Your task to perform on an android device: toggle translation in the chrome app Image 0: 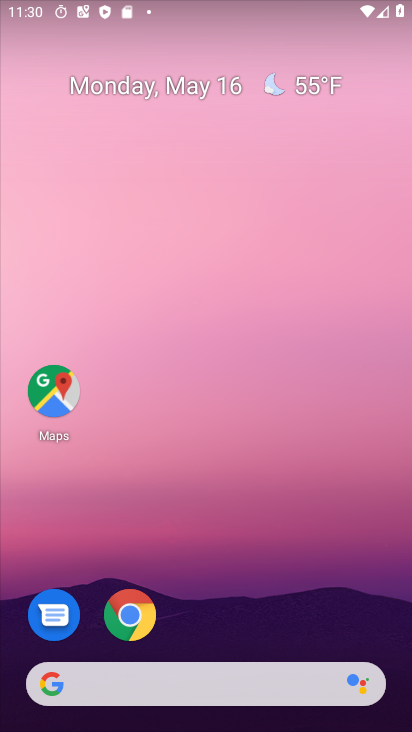
Step 0: press home button
Your task to perform on an android device: toggle translation in the chrome app Image 1: 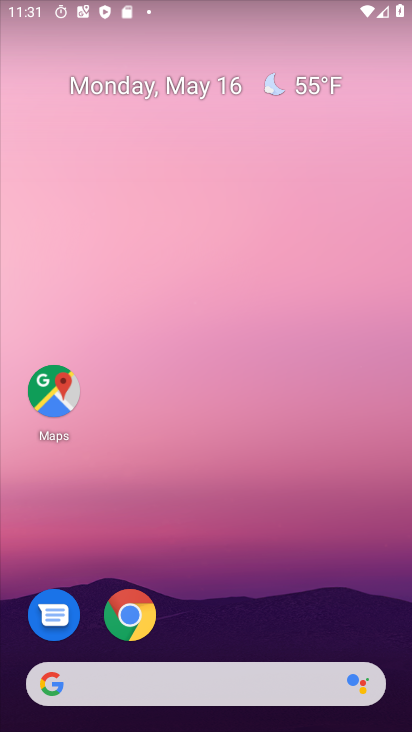
Step 1: click (140, 622)
Your task to perform on an android device: toggle translation in the chrome app Image 2: 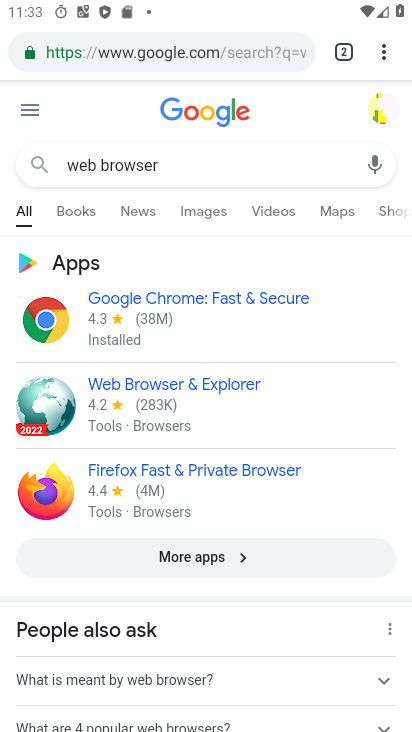
Step 2: click (374, 52)
Your task to perform on an android device: toggle translation in the chrome app Image 3: 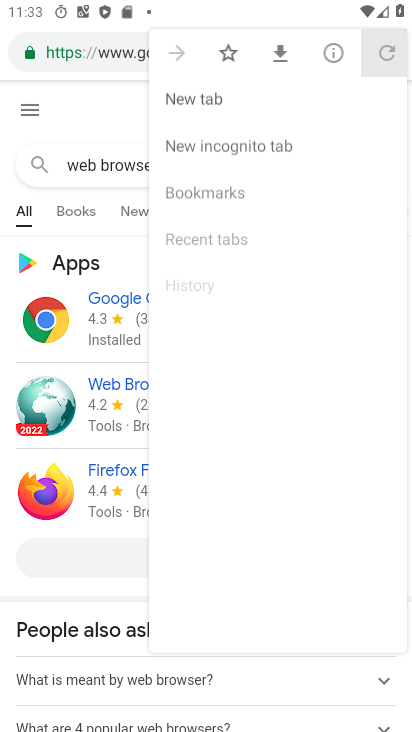
Step 3: drag from (388, 66) to (34, 265)
Your task to perform on an android device: toggle translation in the chrome app Image 4: 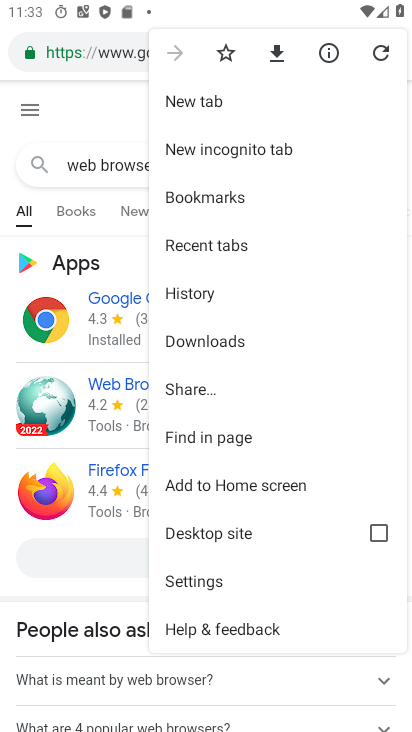
Step 4: click (214, 577)
Your task to perform on an android device: toggle translation in the chrome app Image 5: 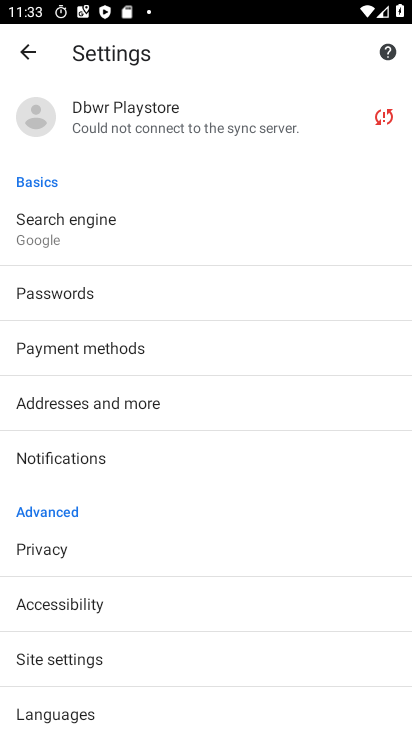
Step 5: drag from (189, 366) to (199, 260)
Your task to perform on an android device: toggle translation in the chrome app Image 6: 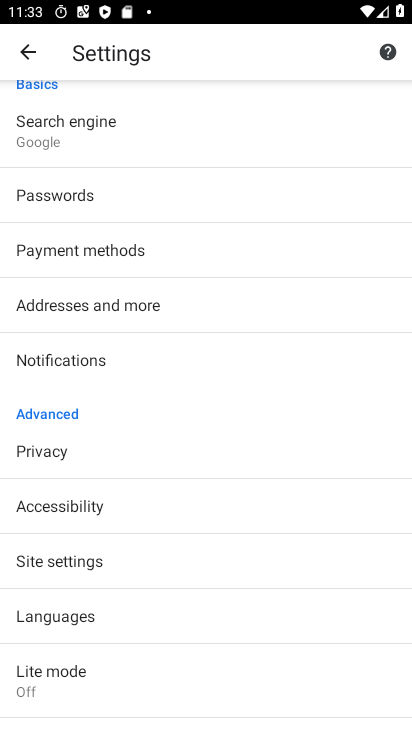
Step 6: click (246, 205)
Your task to perform on an android device: toggle translation in the chrome app Image 7: 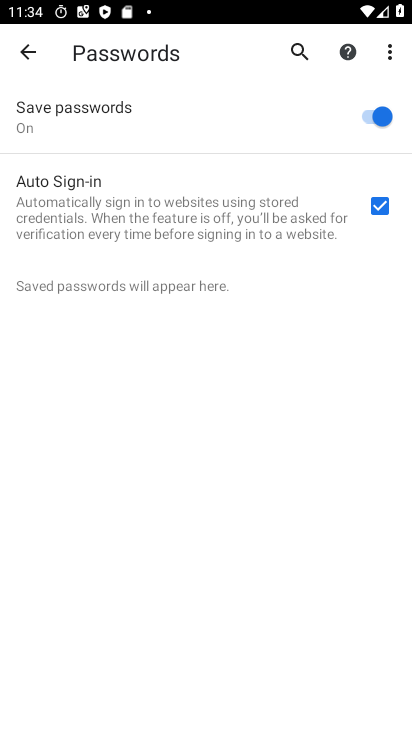
Step 7: drag from (149, 328) to (176, 198)
Your task to perform on an android device: toggle translation in the chrome app Image 8: 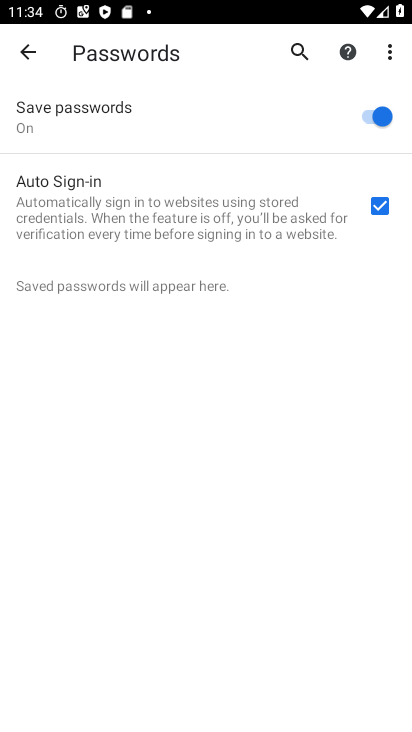
Step 8: click (35, 49)
Your task to perform on an android device: toggle translation in the chrome app Image 9: 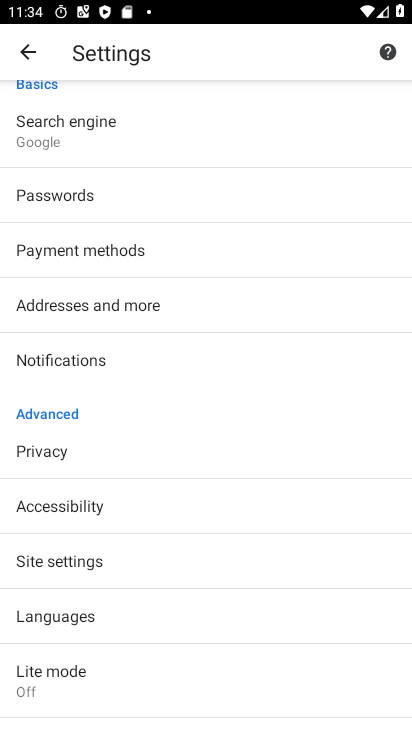
Step 9: click (85, 609)
Your task to perform on an android device: toggle translation in the chrome app Image 10: 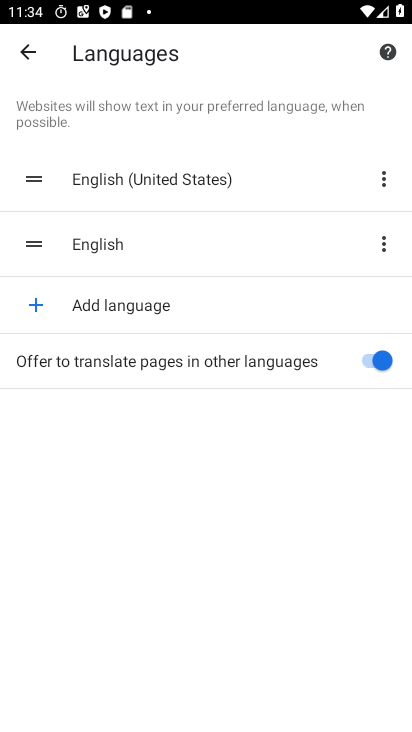
Step 10: click (65, 617)
Your task to perform on an android device: toggle translation in the chrome app Image 11: 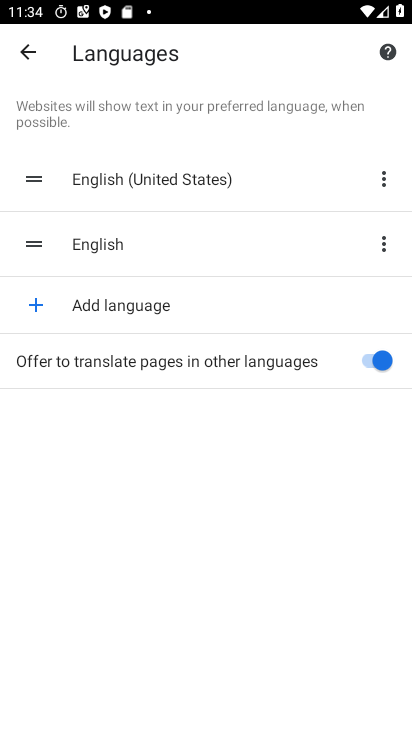
Step 11: click (385, 367)
Your task to perform on an android device: toggle translation in the chrome app Image 12: 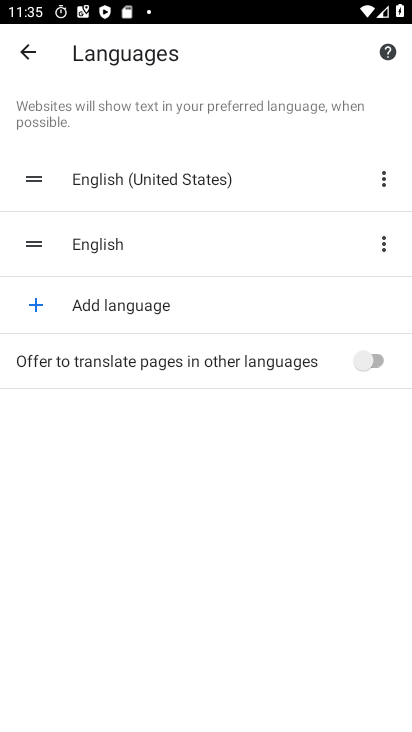
Step 12: task complete